Your task to perform on an android device: Show me popular games on the Play Store Image 0: 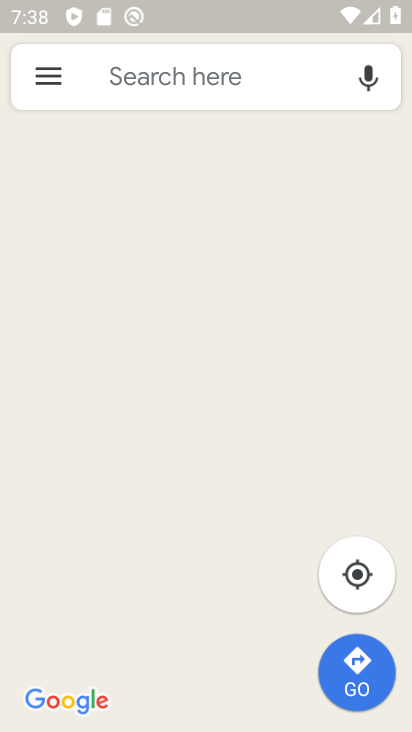
Step 0: press home button
Your task to perform on an android device: Show me popular games on the Play Store Image 1: 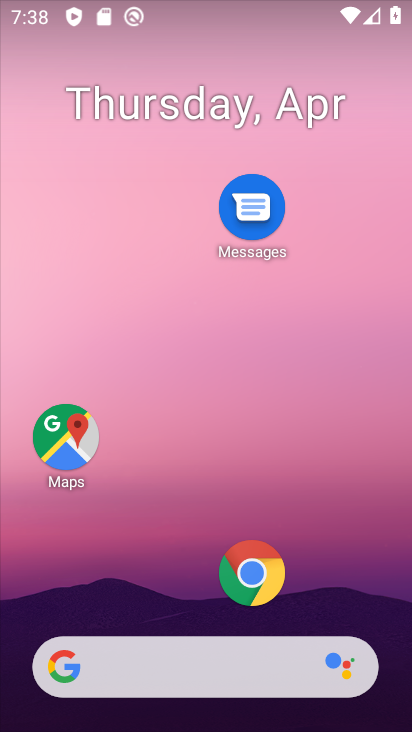
Step 1: drag from (189, 608) to (229, 225)
Your task to perform on an android device: Show me popular games on the Play Store Image 2: 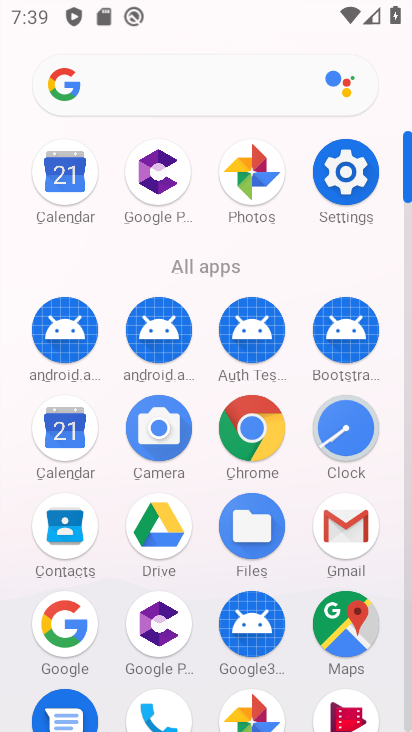
Step 2: drag from (199, 578) to (216, 186)
Your task to perform on an android device: Show me popular games on the Play Store Image 3: 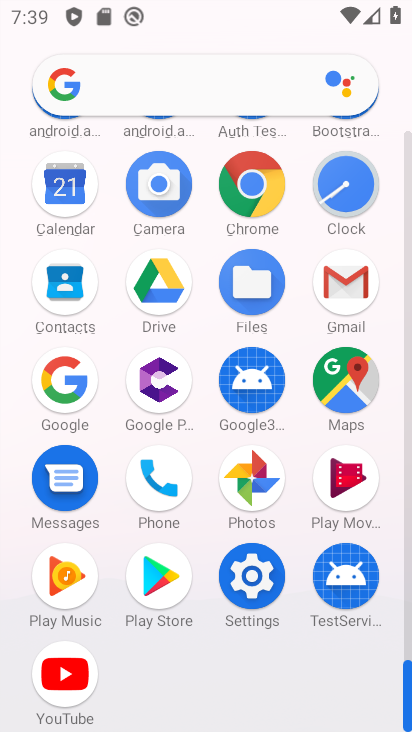
Step 3: click (153, 569)
Your task to perform on an android device: Show me popular games on the Play Store Image 4: 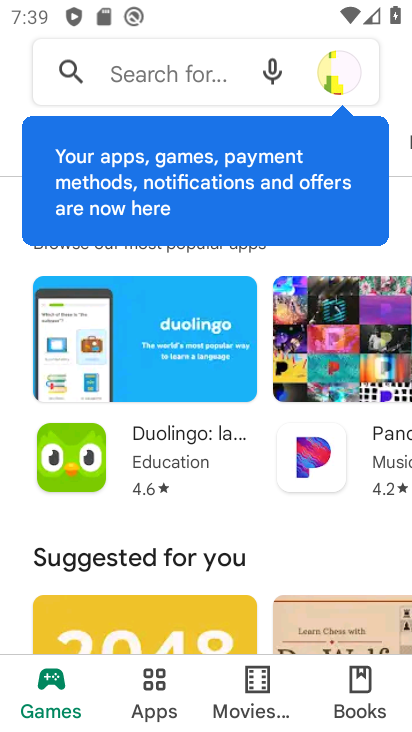
Step 4: drag from (177, 574) to (238, 168)
Your task to perform on an android device: Show me popular games on the Play Store Image 5: 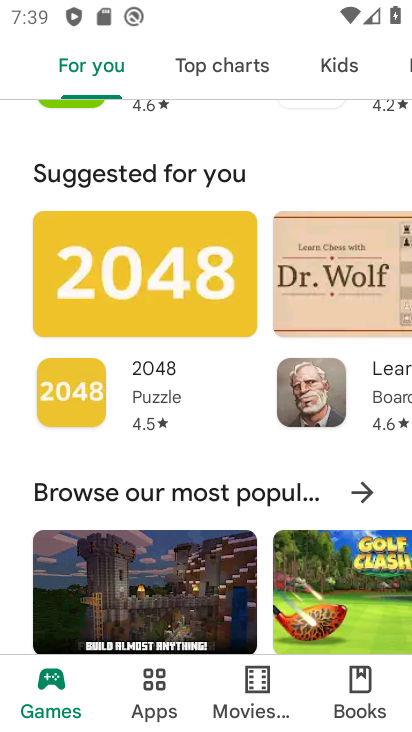
Step 5: click (363, 492)
Your task to perform on an android device: Show me popular games on the Play Store Image 6: 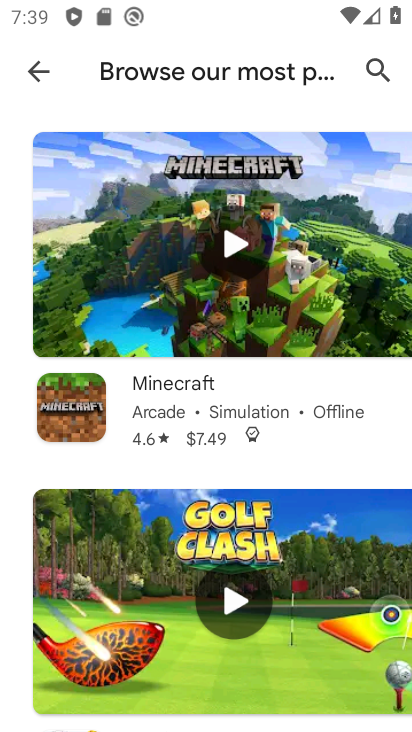
Step 6: task complete